Your task to perform on an android device: turn on showing notifications on the lock screen Image 0: 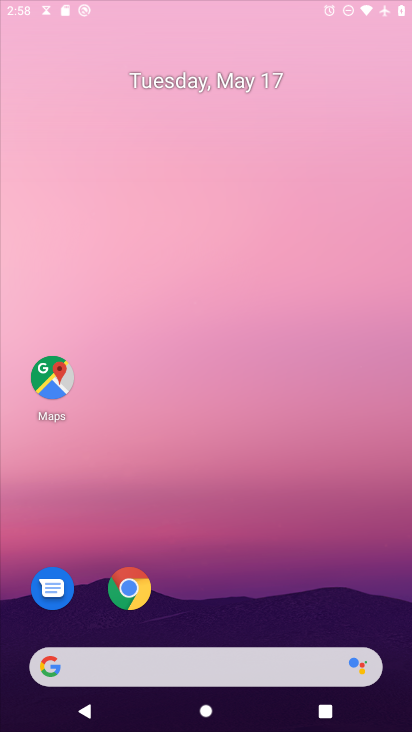
Step 0: click (153, 582)
Your task to perform on an android device: turn on showing notifications on the lock screen Image 1: 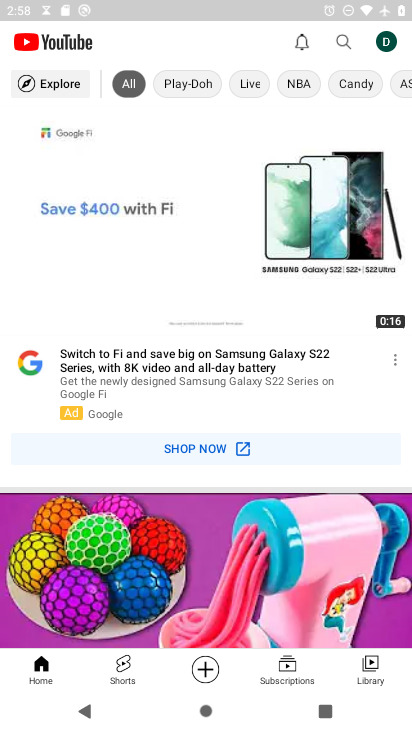
Step 1: press home button
Your task to perform on an android device: turn on showing notifications on the lock screen Image 2: 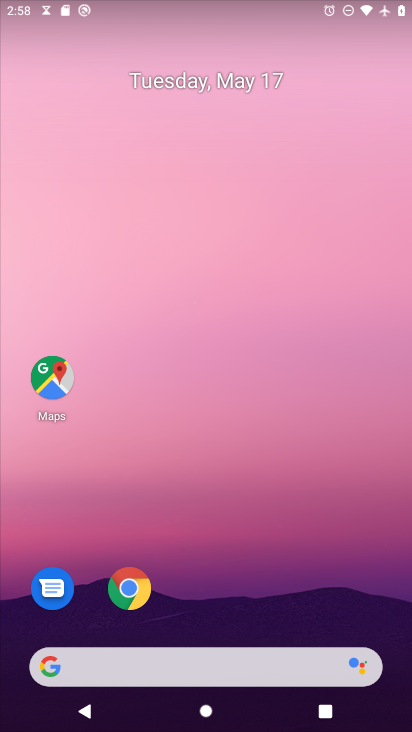
Step 2: drag from (164, 544) to (40, 175)
Your task to perform on an android device: turn on showing notifications on the lock screen Image 3: 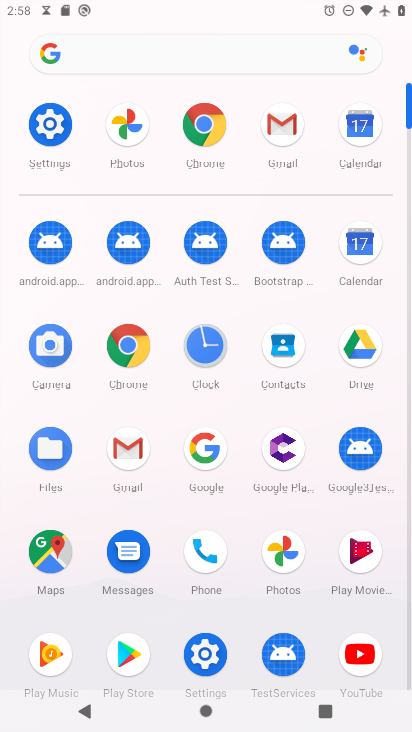
Step 3: click (192, 656)
Your task to perform on an android device: turn on showing notifications on the lock screen Image 4: 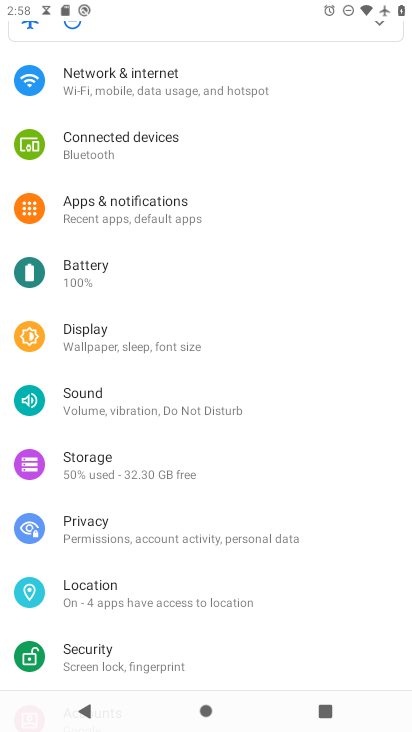
Step 4: click (128, 225)
Your task to perform on an android device: turn on showing notifications on the lock screen Image 5: 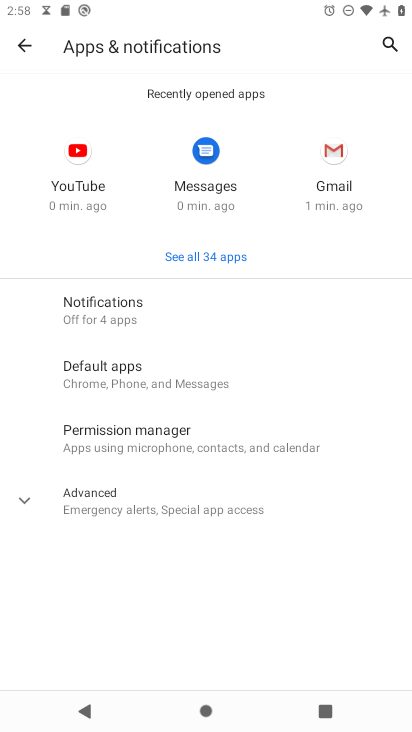
Step 5: click (160, 301)
Your task to perform on an android device: turn on showing notifications on the lock screen Image 6: 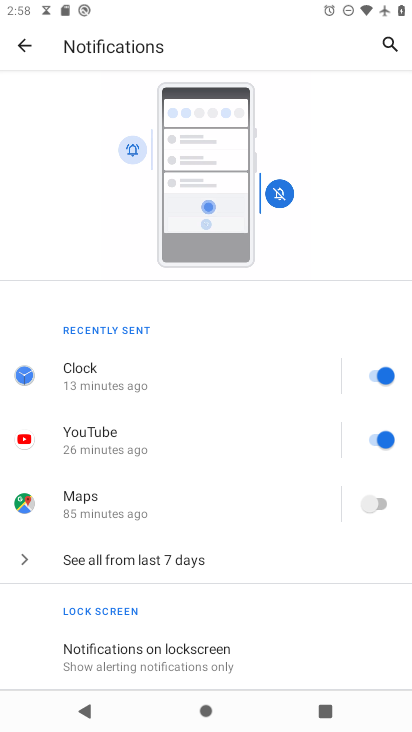
Step 6: click (103, 649)
Your task to perform on an android device: turn on showing notifications on the lock screen Image 7: 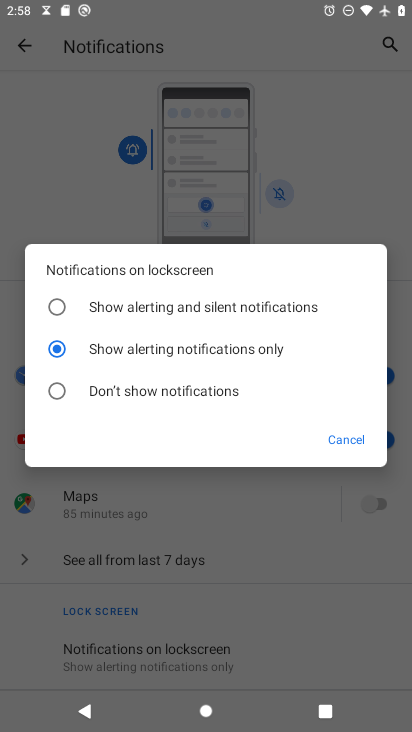
Step 7: click (116, 312)
Your task to perform on an android device: turn on showing notifications on the lock screen Image 8: 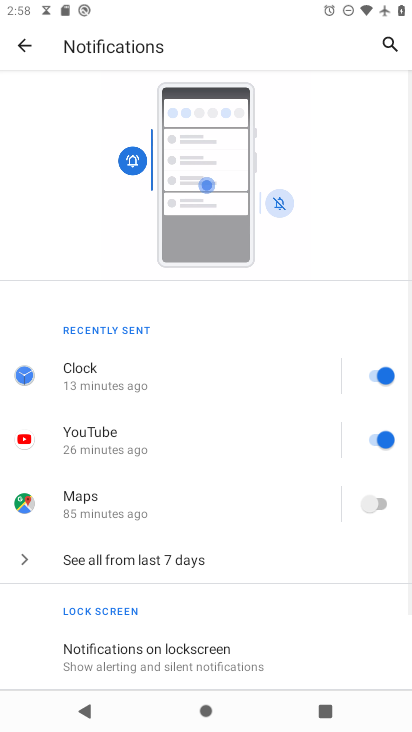
Step 8: task complete